Your task to perform on an android device: Go to CNN.com Image 0: 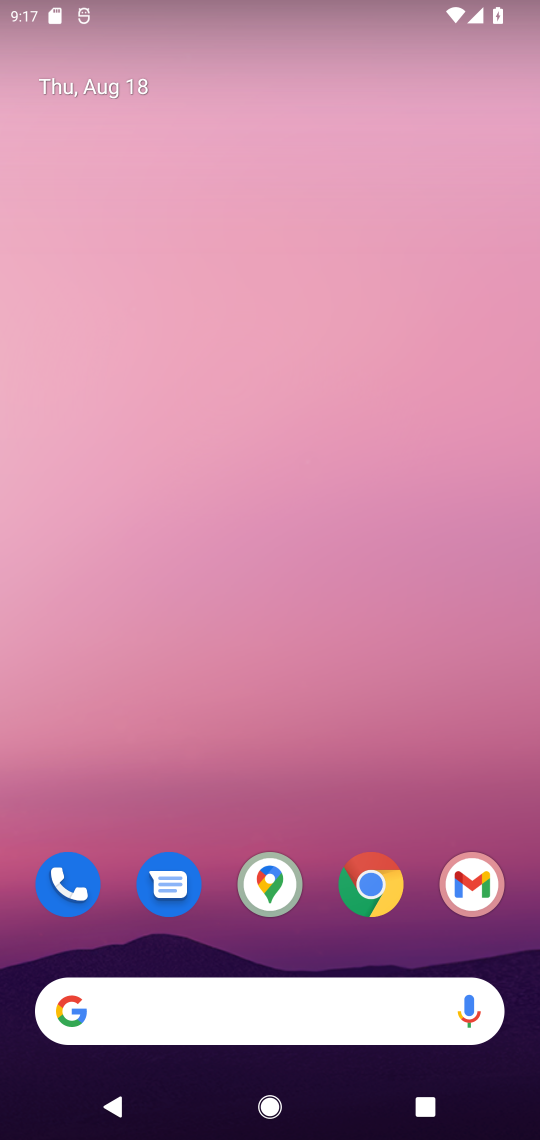
Step 0: click (234, 1012)
Your task to perform on an android device: Go to CNN.com Image 1: 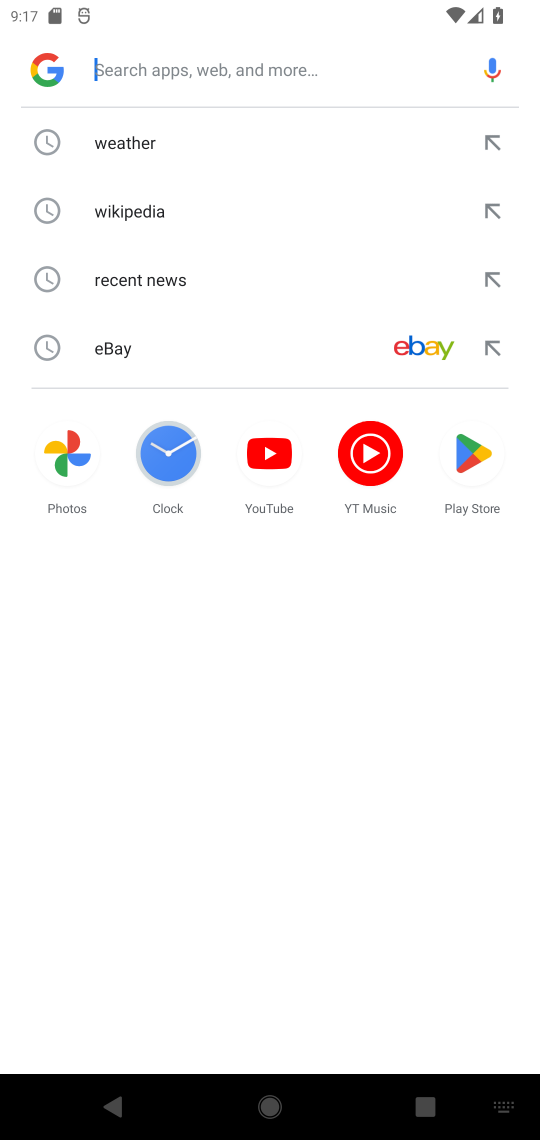
Step 1: type "cnn"
Your task to perform on an android device: Go to CNN.com Image 2: 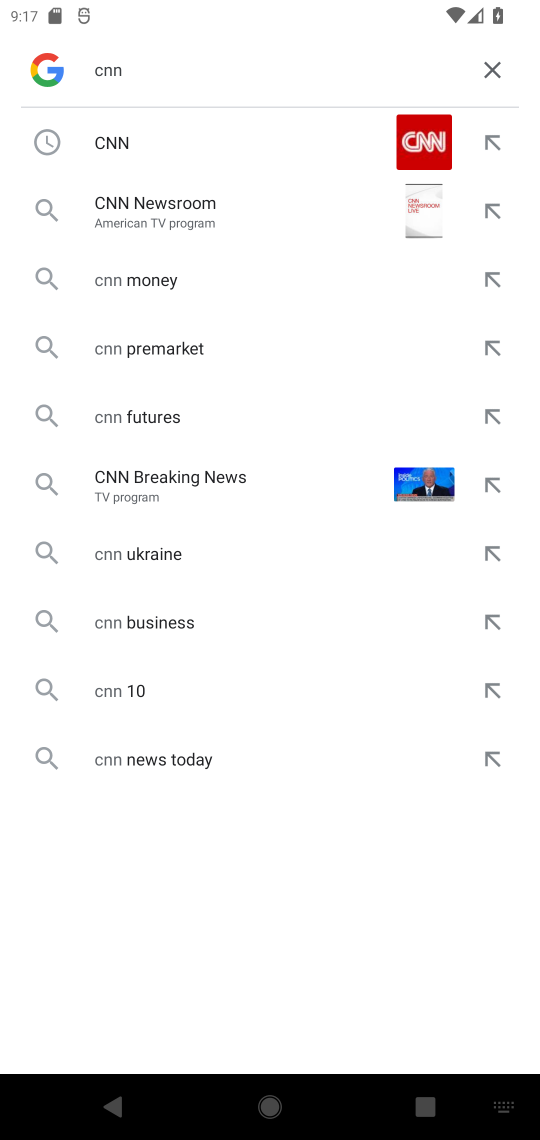
Step 2: click (227, 142)
Your task to perform on an android device: Go to CNN.com Image 3: 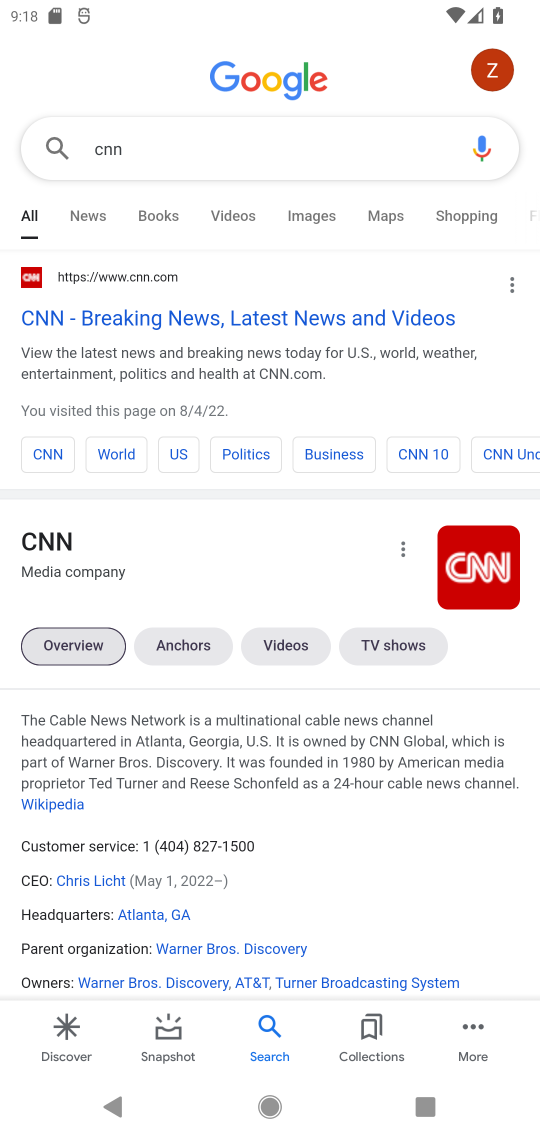
Step 3: click (389, 321)
Your task to perform on an android device: Go to CNN.com Image 4: 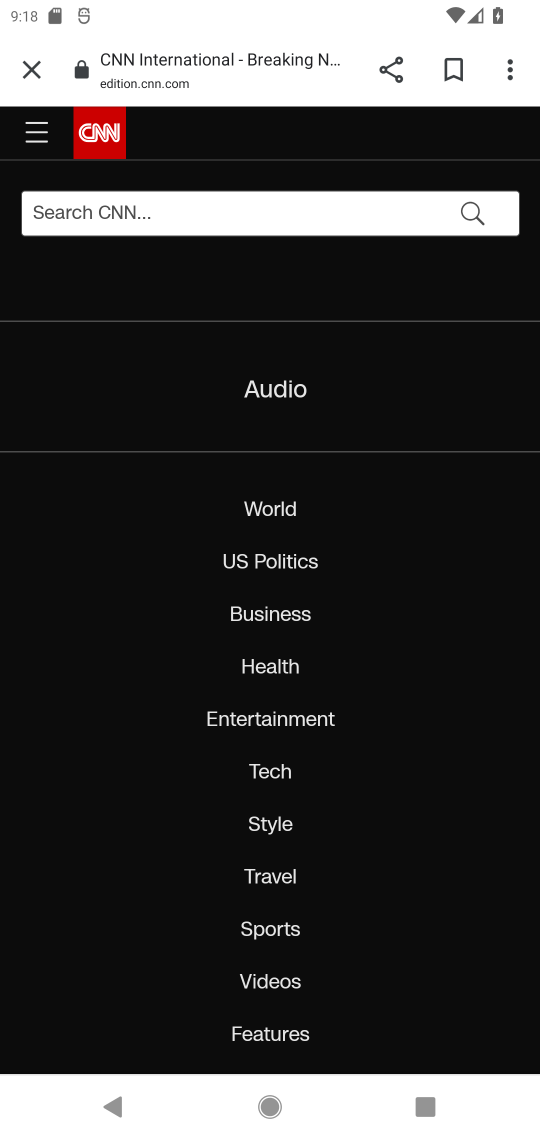
Step 4: task complete